Your task to perform on an android device: What's on the menu at Olive Garden? Image 0: 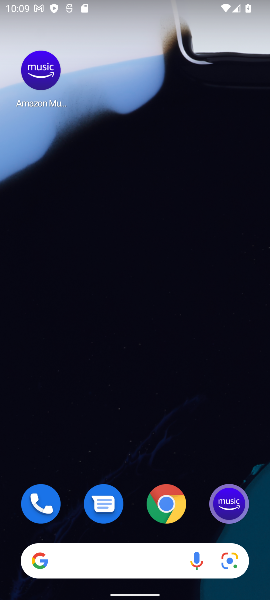
Step 0: click (166, 502)
Your task to perform on an android device: What's on the menu at Olive Garden? Image 1: 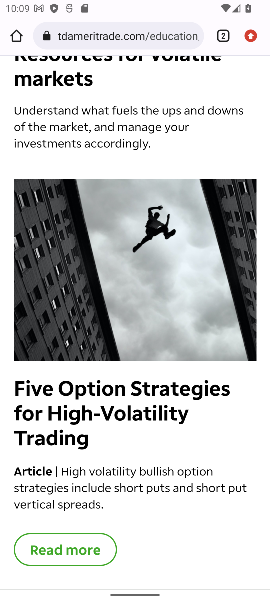
Step 1: click (137, 23)
Your task to perform on an android device: What's on the menu at Olive Garden? Image 2: 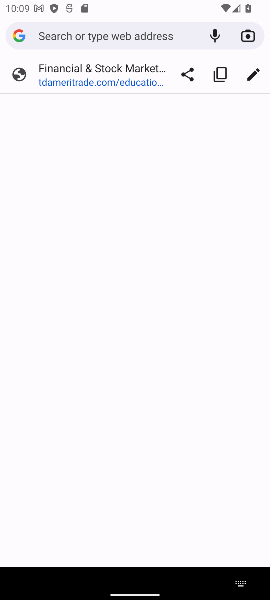
Step 2: type "menu at Olive Garden?"
Your task to perform on an android device: What's on the menu at Olive Garden? Image 3: 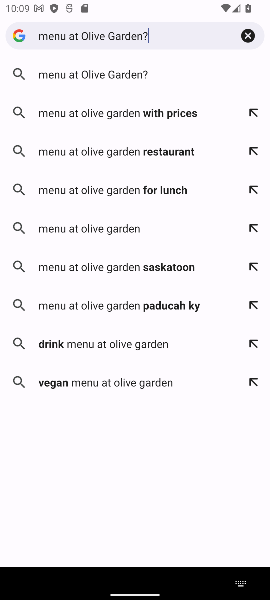
Step 3: click (75, 72)
Your task to perform on an android device: What's on the menu at Olive Garden? Image 4: 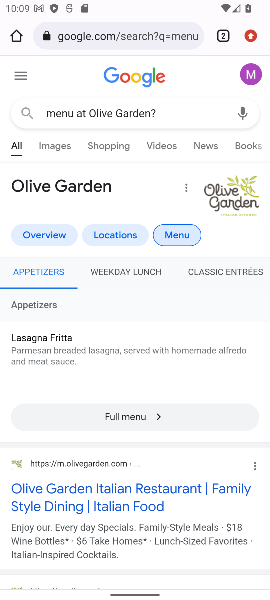
Step 4: drag from (69, 533) to (84, 138)
Your task to perform on an android device: What's on the menu at Olive Garden? Image 5: 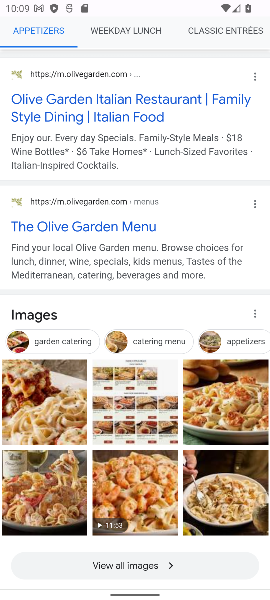
Step 5: click (50, 227)
Your task to perform on an android device: What's on the menu at Olive Garden? Image 6: 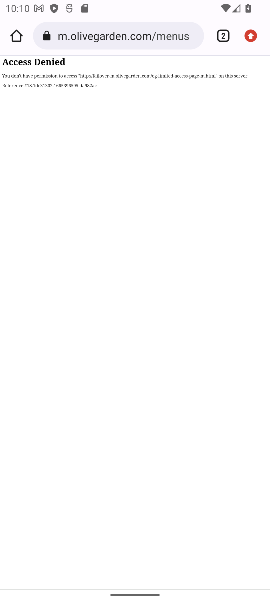
Step 6: press back button
Your task to perform on an android device: What's on the menu at Olive Garden? Image 7: 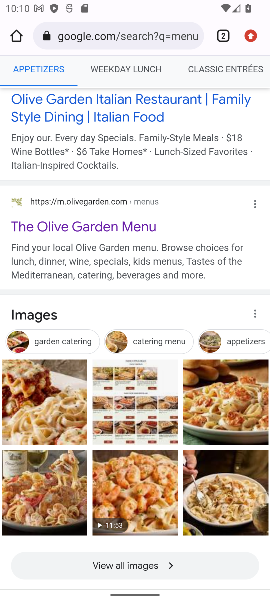
Step 7: drag from (162, 296) to (136, 25)
Your task to perform on an android device: What's on the menu at Olive Garden? Image 8: 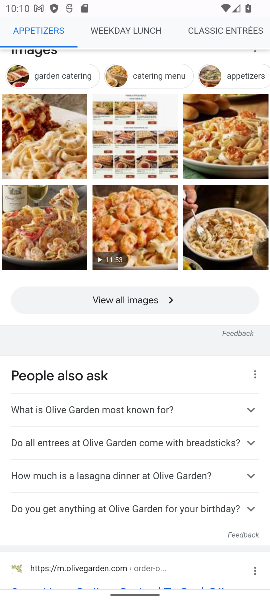
Step 8: drag from (146, 406) to (127, 107)
Your task to perform on an android device: What's on the menu at Olive Garden? Image 9: 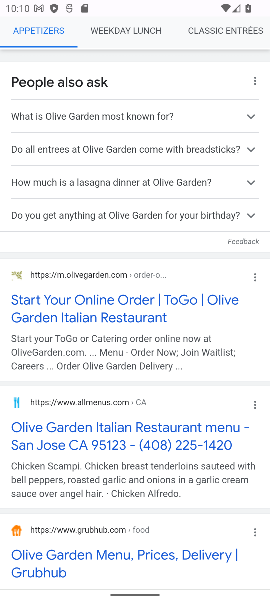
Step 9: drag from (140, 525) to (124, 265)
Your task to perform on an android device: What's on the menu at Olive Garden? Image 10: 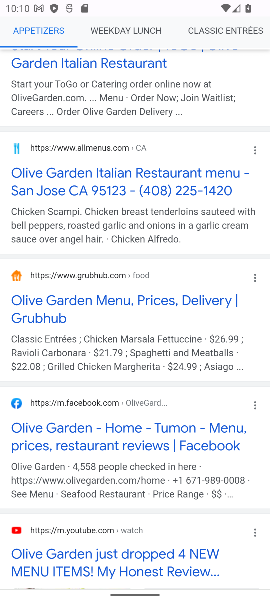
Step 10: click (65, 301)
Your task to perform on an android device: What's on the menu at Olive Garden? Image 11: 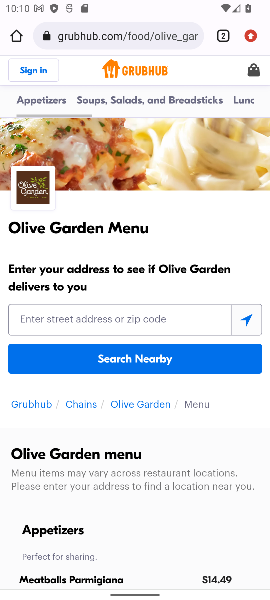
Step 11: task complete